Your task to perform on an android device: Open eBay Image 0: 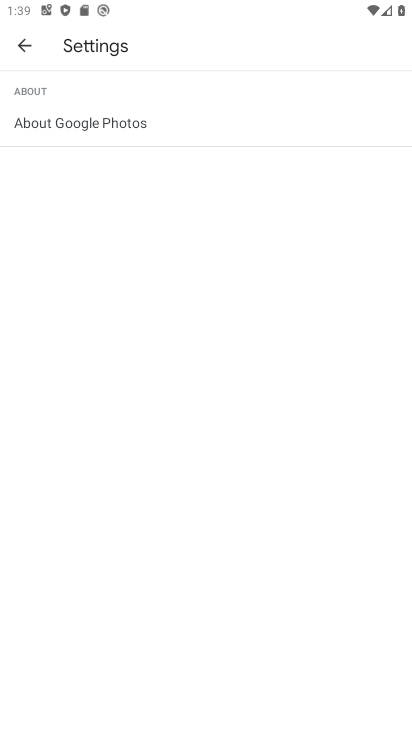
Step 0: press home button
Your task to perform on an android device: Open eBay Image 1: 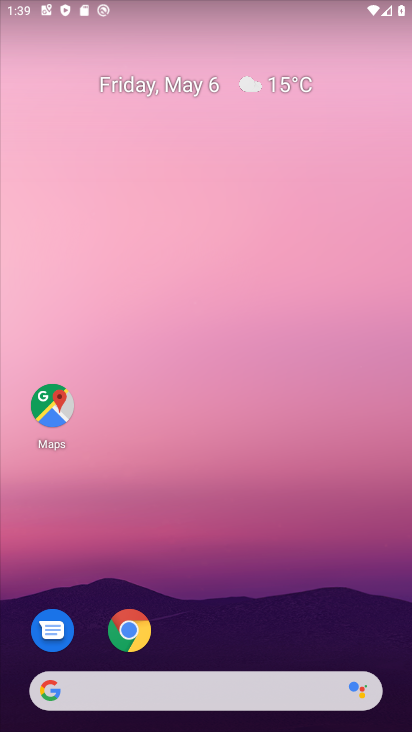
Step 1: click (169, 696)
Your task to perform on an android device: Open eBay Image 2: 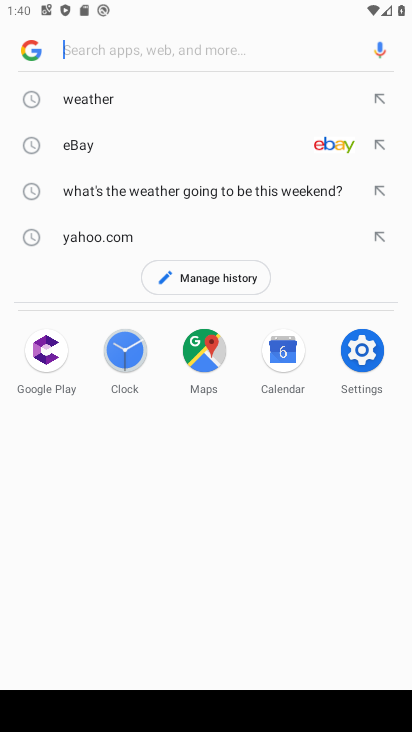
Step 2: click (334, 151)
Your task to perform on an android device: Open eBay Image 3: 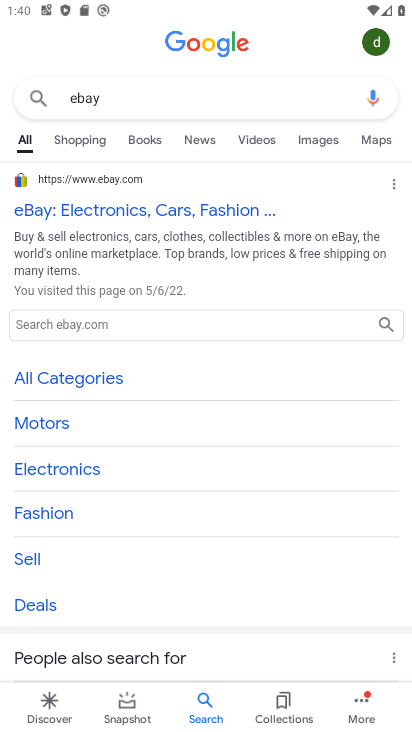
Step 3: task complete